Your task to perform on an android device: find which apps use the phone's location Image 0: 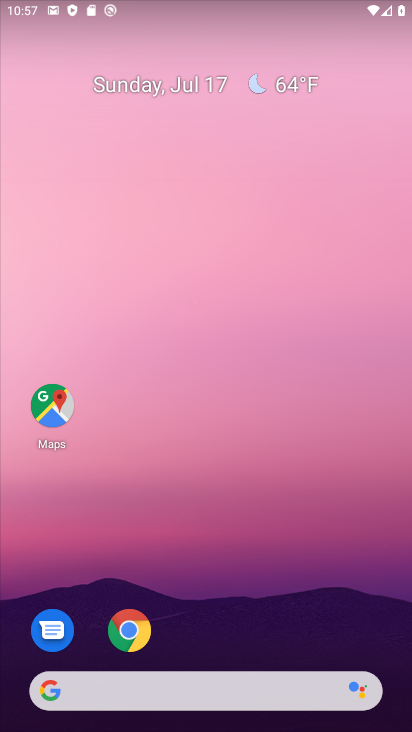
Step 0: drag from (255, 659) to (319, 202)
Your task to perform on an android device: find which apps use the phone's location Image 1: 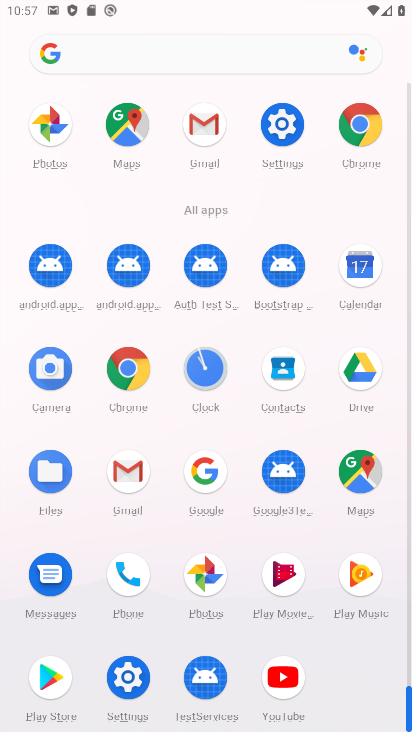
Step 1: click (123, 686)
Your task to perform on an android device: find which apps use the phone's location Image 2: 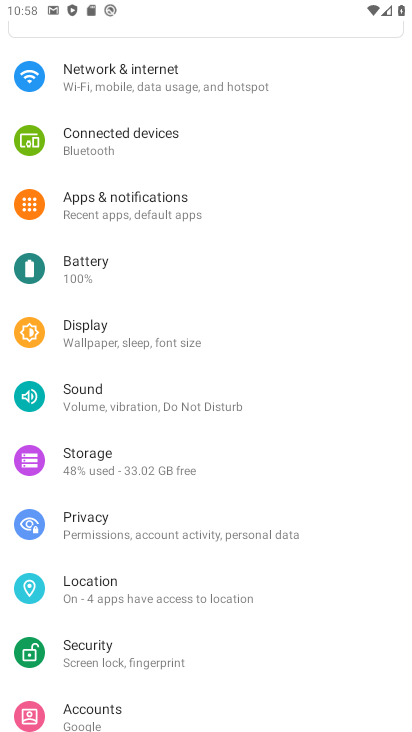
Step 2: click (103, 585)
Your task to perform on an android device: find which apps use the phone's location Image 3: 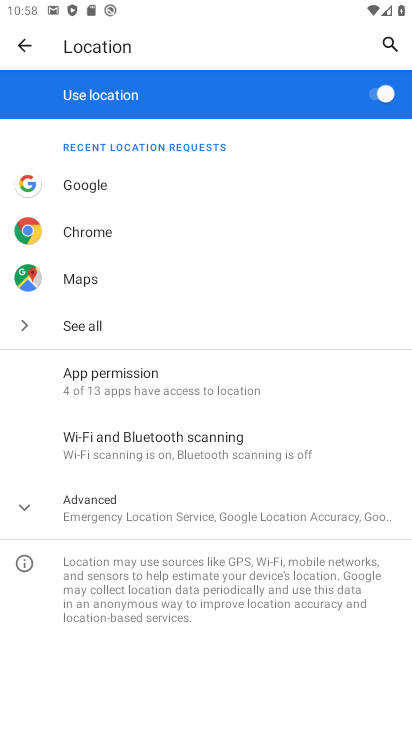
Step 3: click (142, 387)
Your task to perform on an android device: find which apps use the phone's location Image 4: 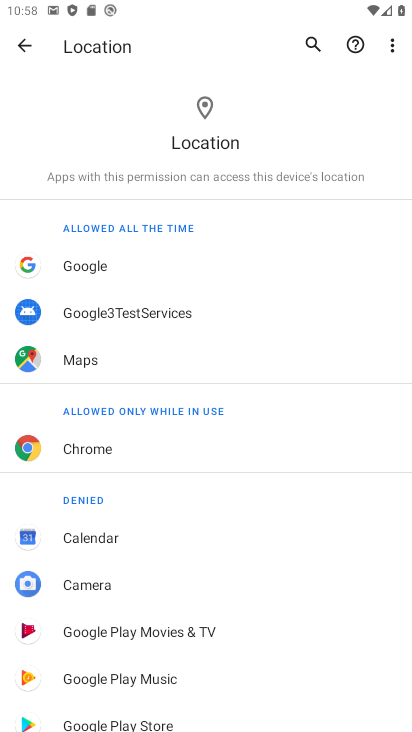
Step 4: task complete